Your task to perform on an android device: move a message to another label in the gmail app Image 0: 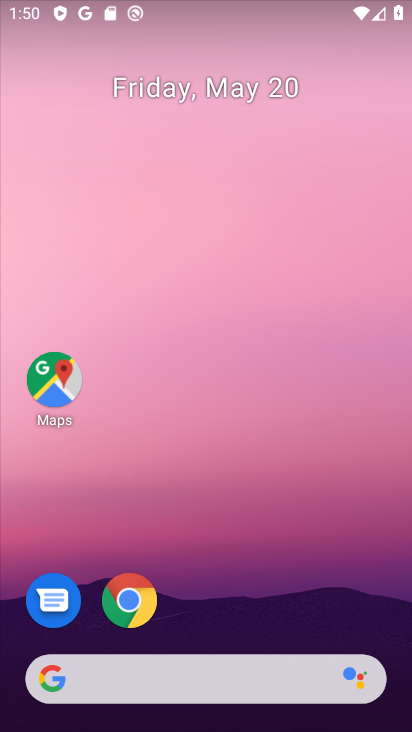
Step 0: drag from (171, 559) to (136, 0)
Your task to perform on an android device: move a message to another label in the gmail app Image 1: 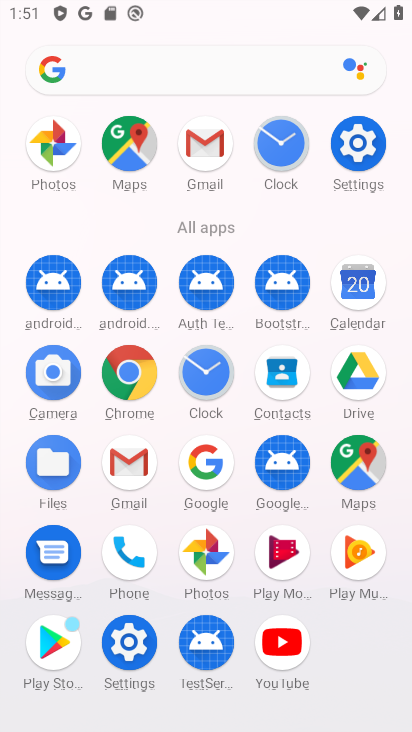
Step 1: click (208, 162)
Your task to perform on an android device: move a message to another label in the gmail app Image 2: 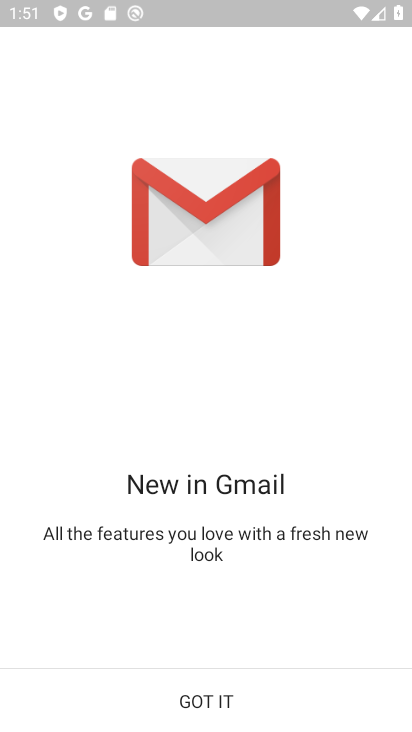
Step 2: click (190, 719)
Your task to perform on an android device: move a message to another label in the gmail app Image 3: 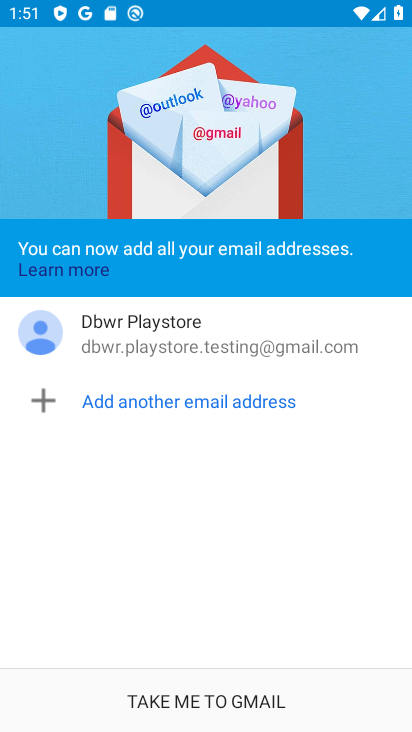
Step 3: click (223, 692)
Your task to perform on an android device: move a message to another label in the gmail app Image 4: 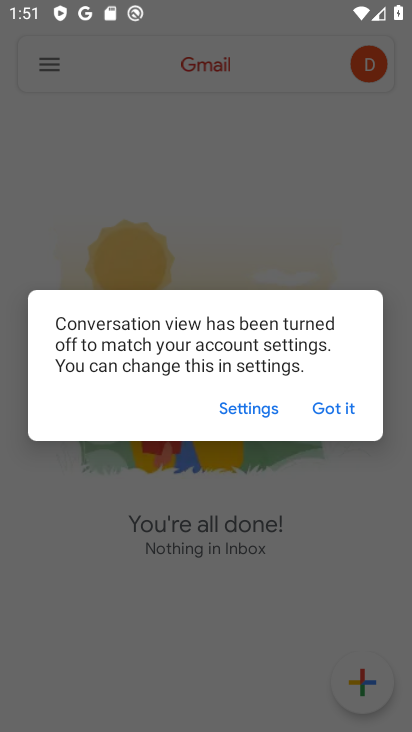
Step 4: click (349, 406)
Your task to perform on an android device: move a message to another label in the gmail app Image 5: 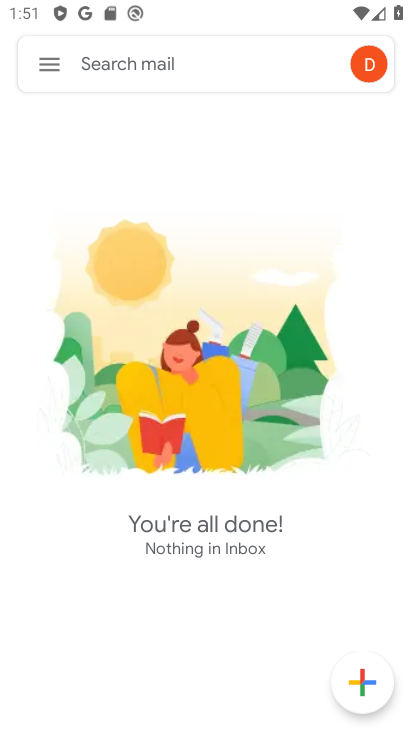
Step 5: click (48, 71)
Your task to perform on an android device: move a message to another label in the gmail app Image 6: 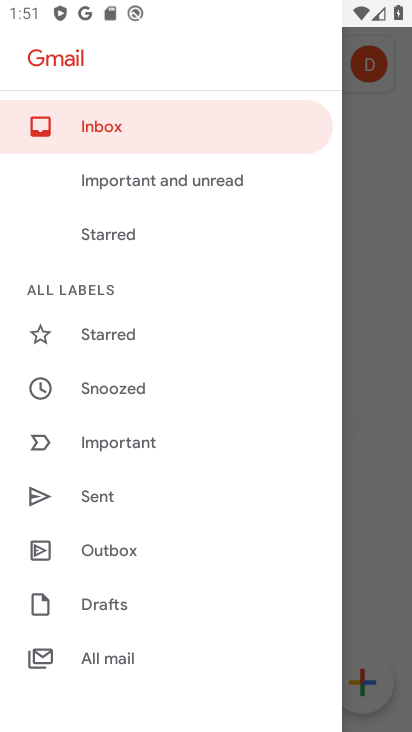
Step 6: drag from (137, 458) to (186, 276)
Your task to perform on an android device: move a message to another label in the gmail app Image 7: 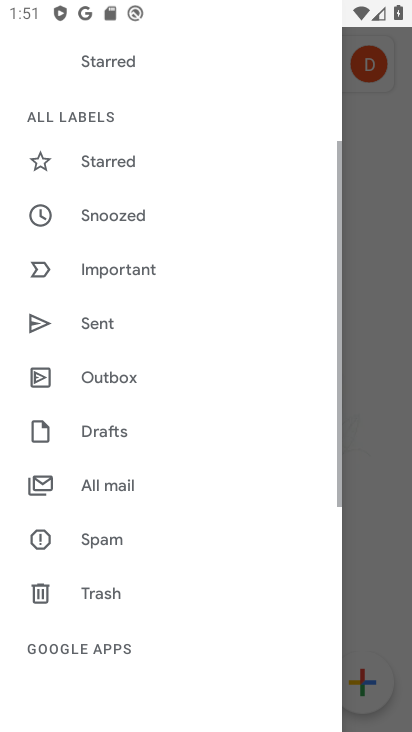
Step 7: click (190, 267)
Your task to perform on an android device: move a message to another label in the gmail app Image 8: 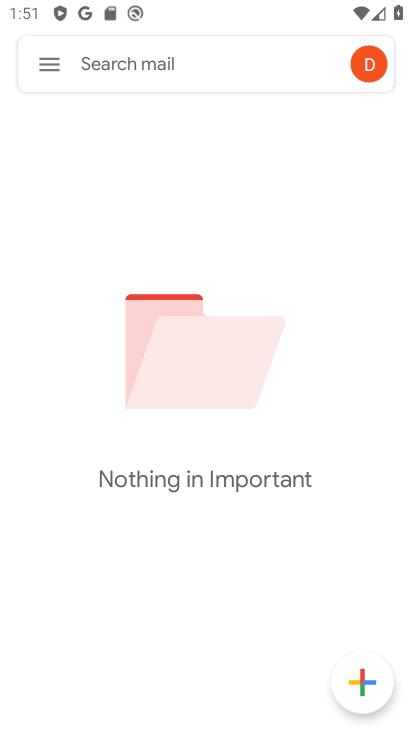
Step 8: click (63, 67)
Your task to perform on an android device: move a message to another label in the gmail app Image 9: 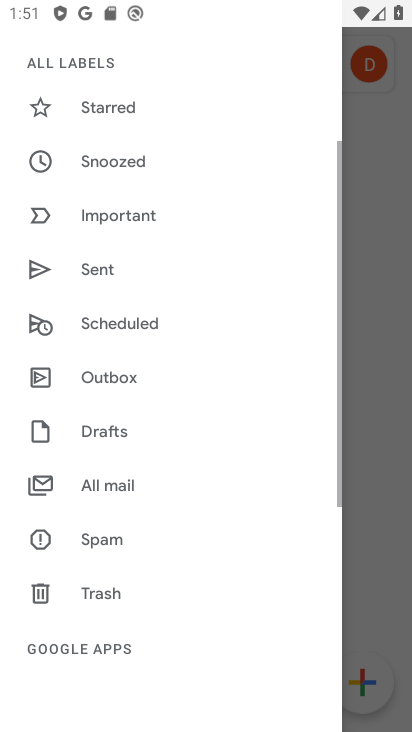
Step 9: task complete